Your task to perform on an android device: Open notification settings Image 0: 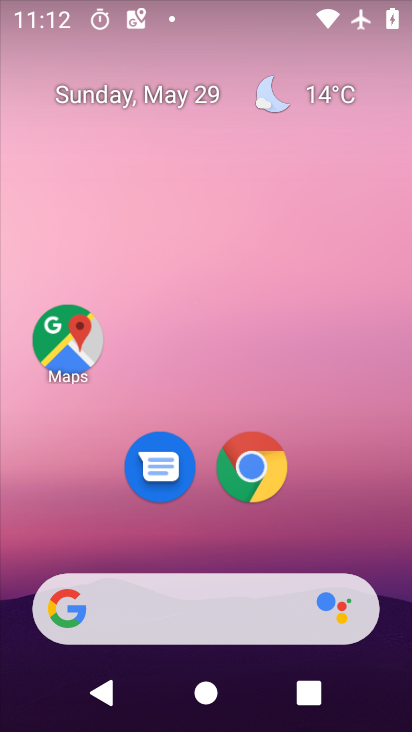
Step 0: drag from (201, 536) to (146, 113)
Your task to perform on an android device: Open notification settings Image 1: 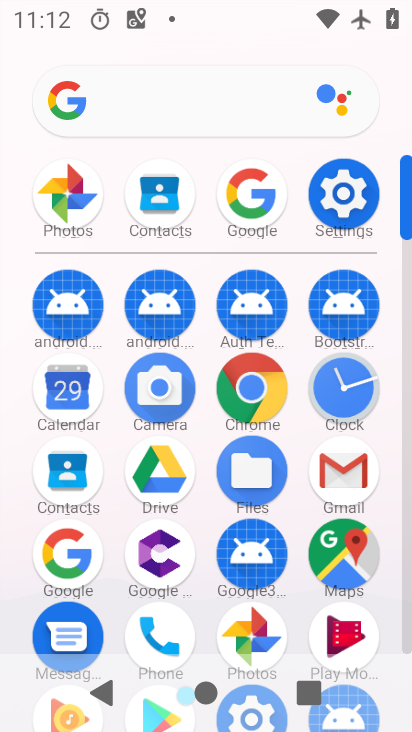
Step 1: click (320, 194)
Your task to perform on an android device: Open notification settings Image 2: 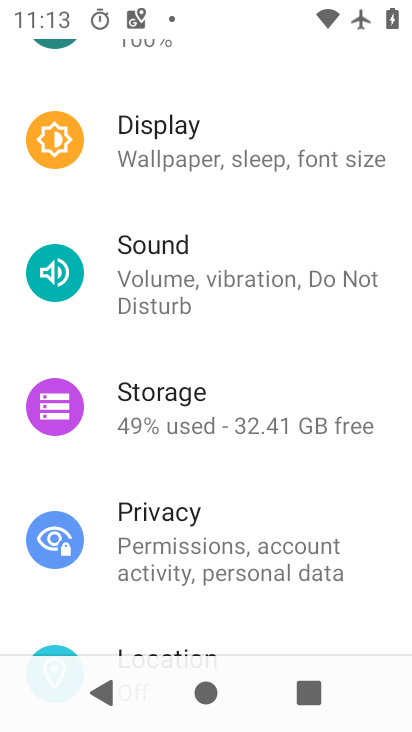
Step 2: drag from (211, 255) to (230, 563)
Your task to perform on an android device: Open notification settings Image 3: 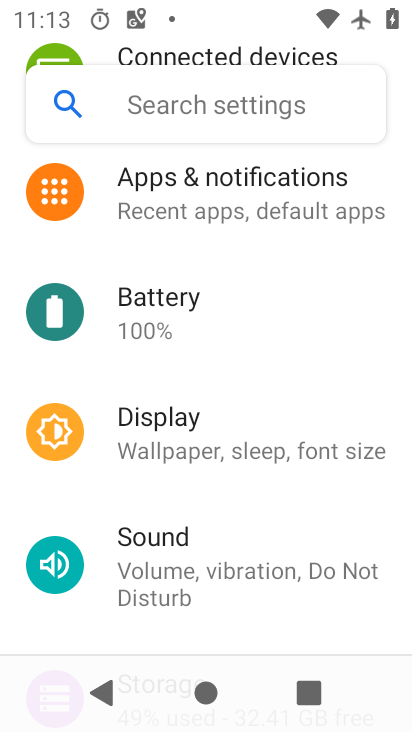
Step 3: click (230, 208)
Your task to perform on an android device: Open notification settings Image 4: 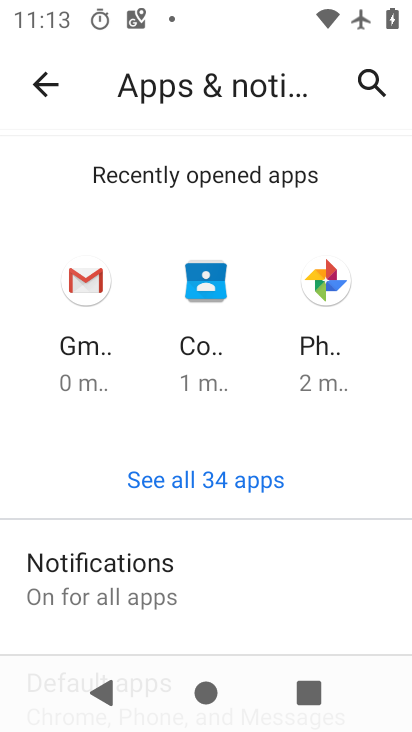
Step 4: click (195, 581)
Your task to perform on an android device: Open notification settings Image 5: 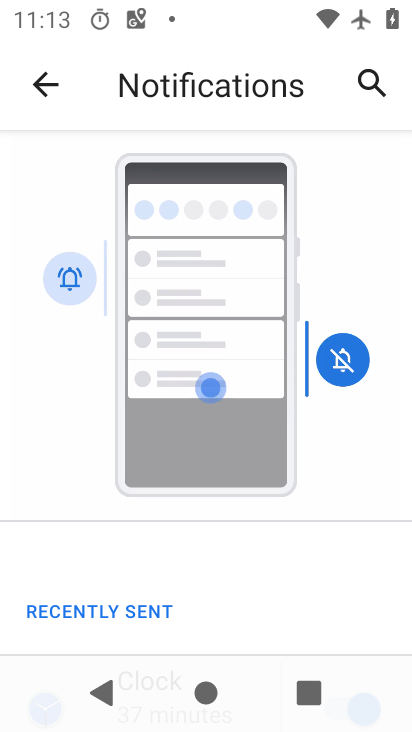
Step 5: drag from (204, 624) to (191, 284)
Your task to perform on an android device: Open notification settings Image 6: 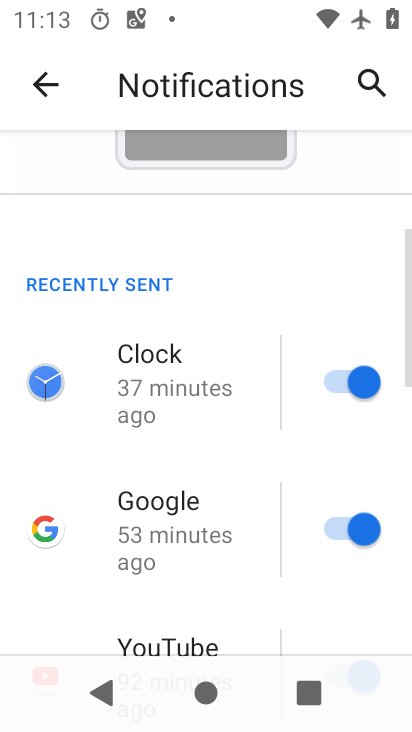
Step 6: drag from (219, 540) to (223, 247)
Your task to perform on an android device: Open notification settings Image 7: 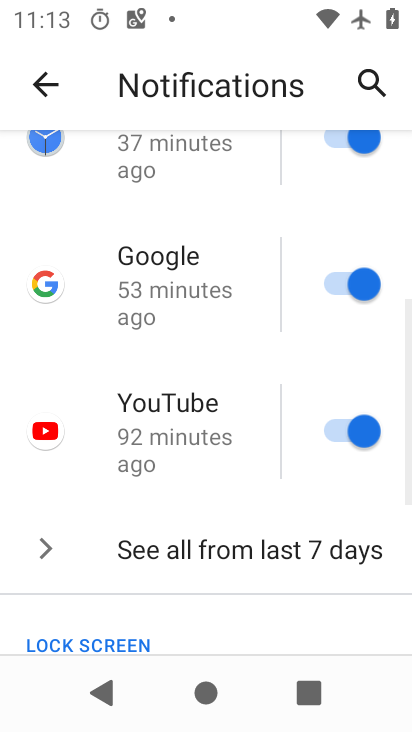
Step 7: drag from (253, 546) to (258, 288)
Your task to perform on an android device: Open notification settings Image 8: 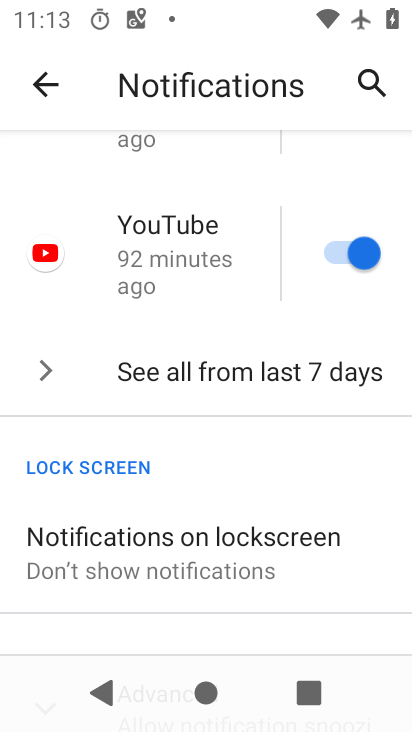
Step 8: drag from (265, 611) to (241, 353)
Your task to perform on an android device: Open notification settings Image 9: 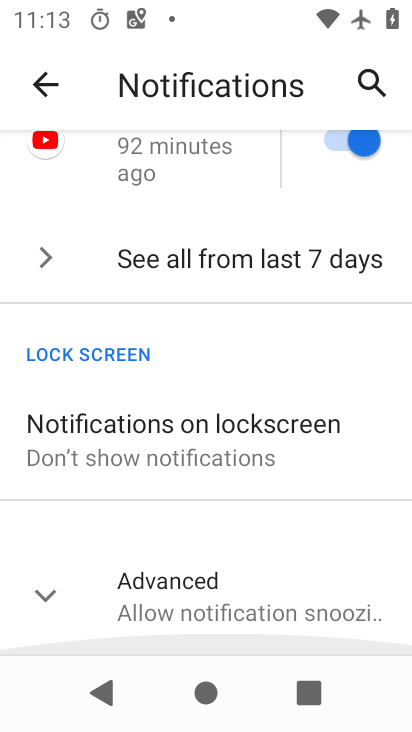
Step 9: click (216, 299)
Your task to perform on an android device: Open notification settings Image 10: 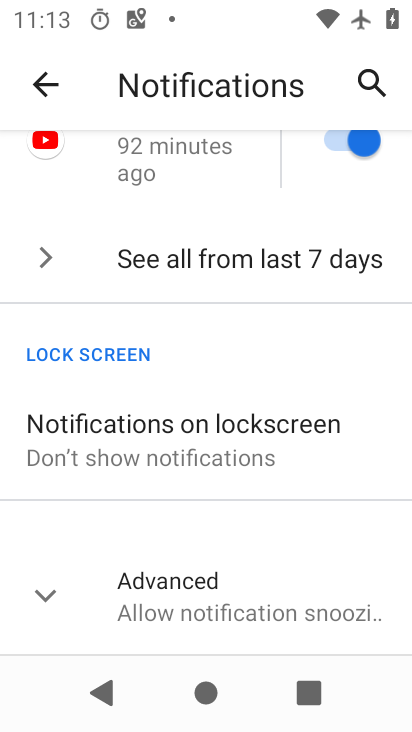
Step 10: task complete